Your task to perform on an android device: Open Google Maps Image 0: 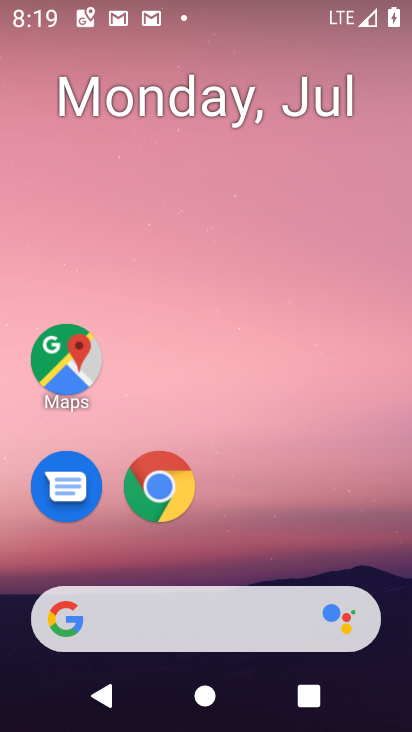
Step 0: drag from (326, 549) to (339, 148)
Your task to perform on an android device: Open Google Maps Image 1: 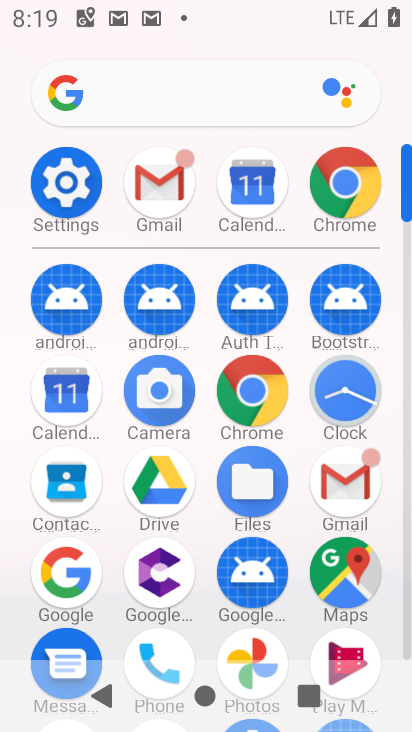
Step 1: click (340, 572)
Your task to perform on an android device: Open Google Maps Image 2: 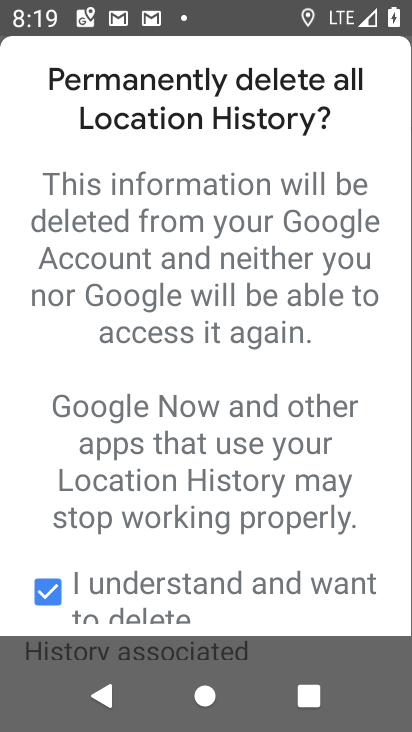
Step 2: task complete